Your task to perform on an android device: Go to eBay Image 0: 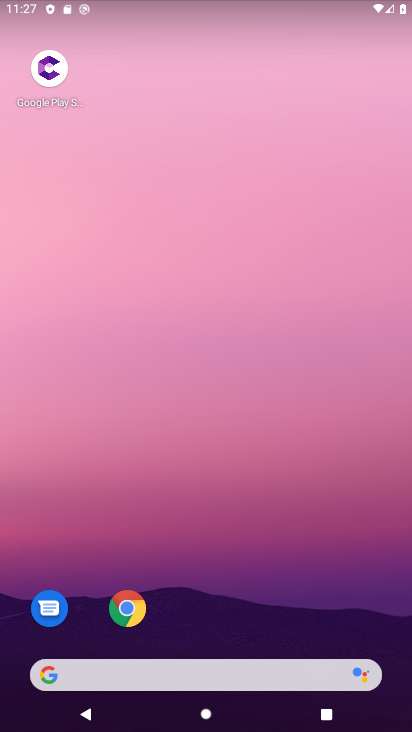
Step 0: click (132, 610)
Your task to perform on an android device: Go to eBay Image 1: 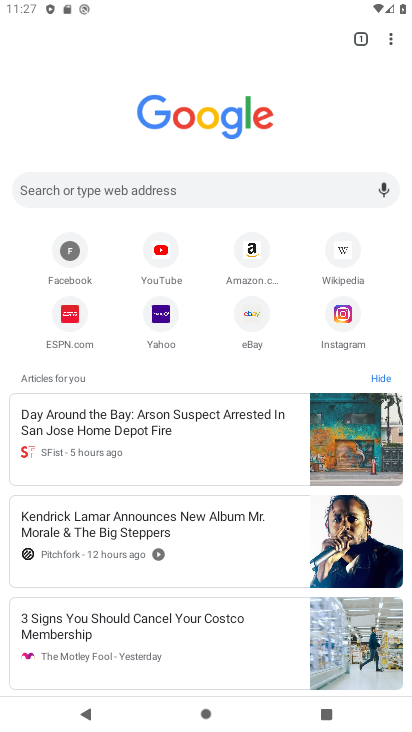
Step 1: click (269, 186)
Your task to perform on an android device: Go to eBay Image 2: 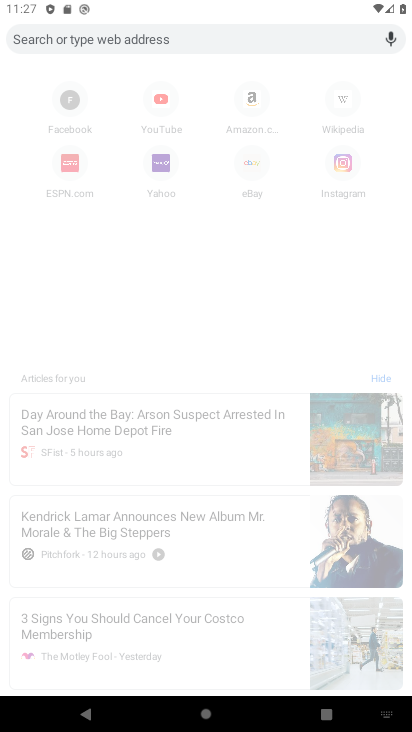
Step 2: type "ebay"
Your task to perform on an android device: Go to eBay Image 3: 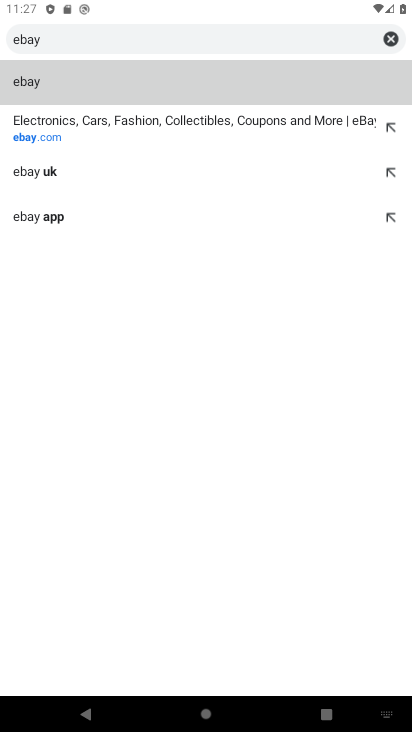
Step 3: click (113, 127)
Your task to perform on an android device: Go to eBay Image 4: 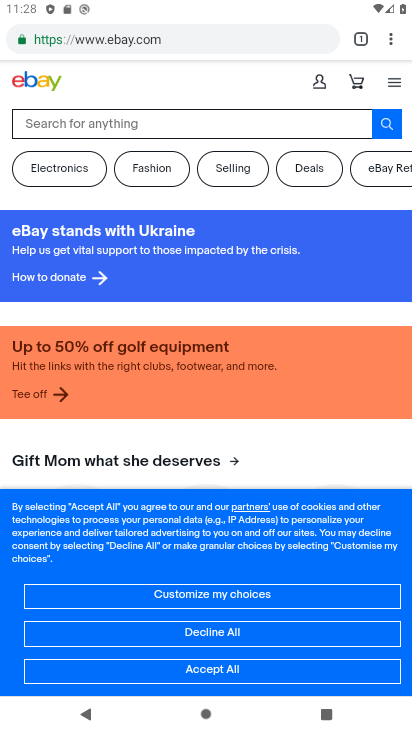
Step 4: task complete